Your task to perform on an android device: What's on my calendar today? Image 0: 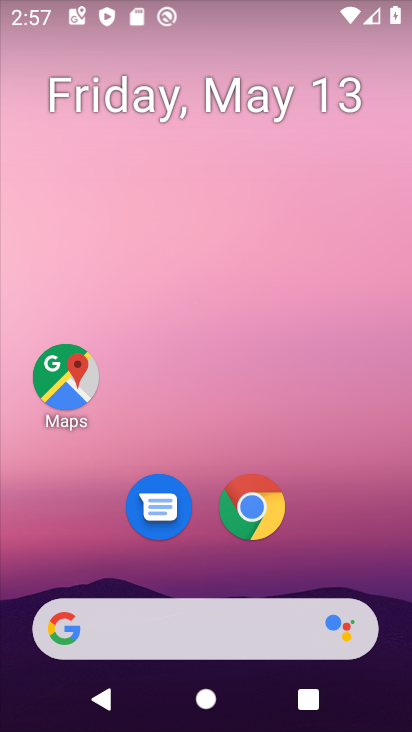
Step 0: drag from (261, 284) to (260, 20)
Your task to perform on an android device: What's on my calendar today? Image 1: 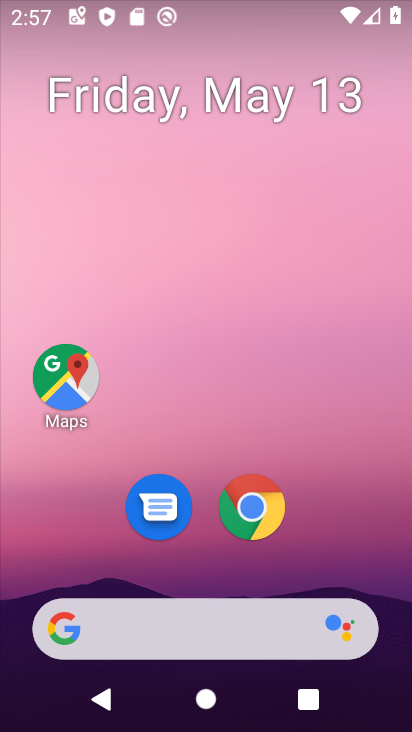
Step 1: drag from (347, 532) to (110, 21)
Your task to perform on an android device: What's on my calendar today? Image 2: 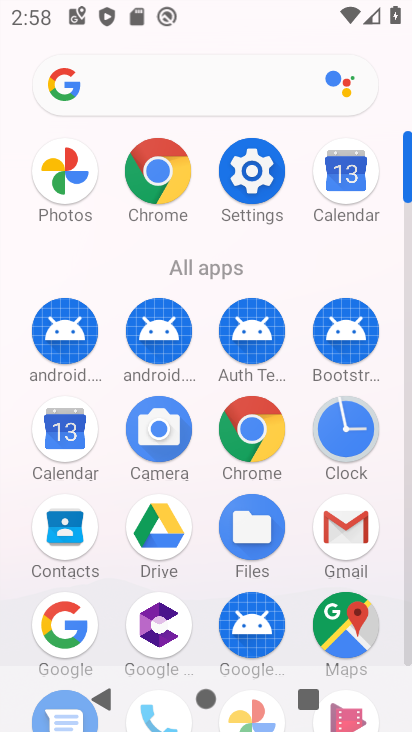
Step 2: drag from (54, 470) to (104, 315)
Your task to perform on an android device: What's on my calendar today? Image 3: 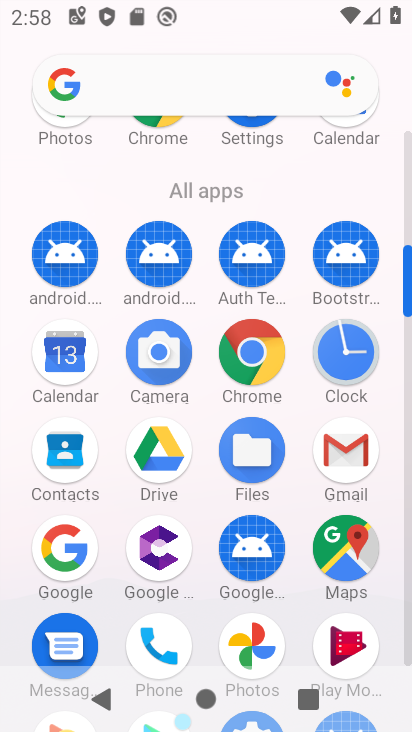
Step 3: click (68, 364)
Your task to perform on an android device: What's on my calendar today? Image 4: 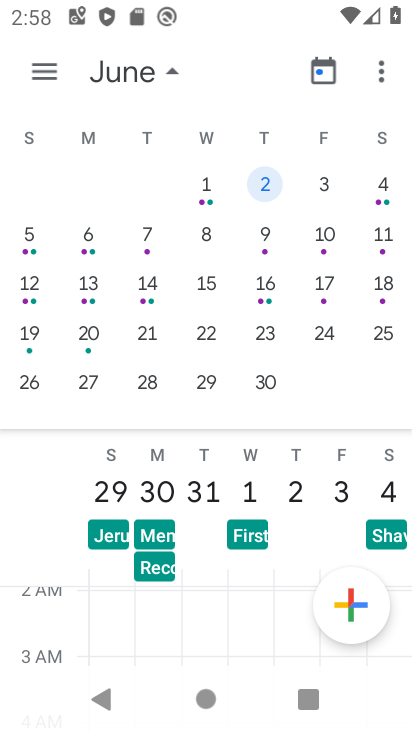
Step 4: click (56, 59)
Your task to perform on an android device: What's on my calendar today? Image 5: 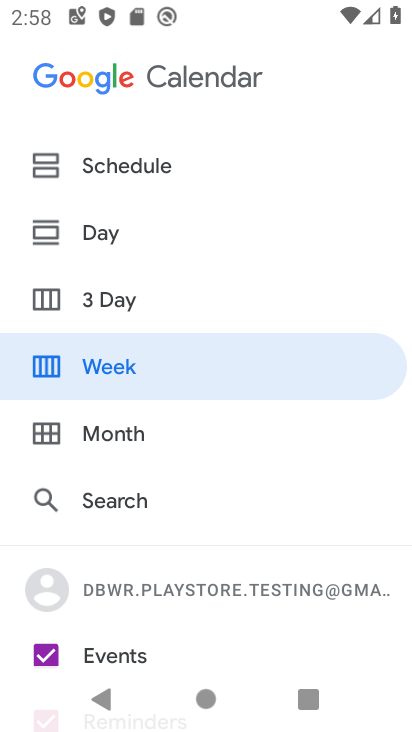
Step 5: click (107, 243)
Your task to perform on an android device: What's on my calendar today? Image 6: 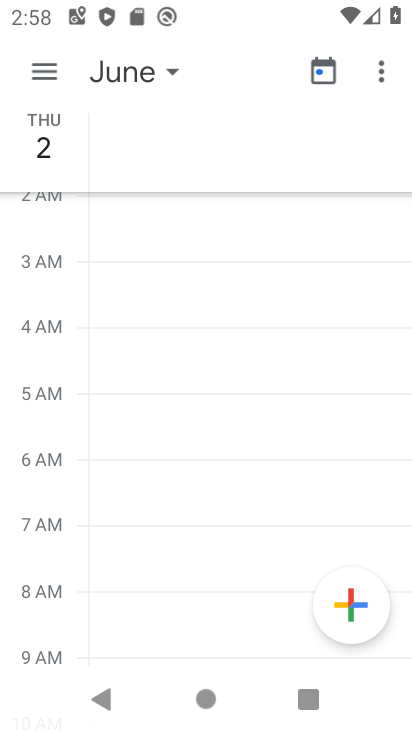
Step 6: click (130, 68)
Your task to perform on an android device: What's on my calendar today? Image 7: 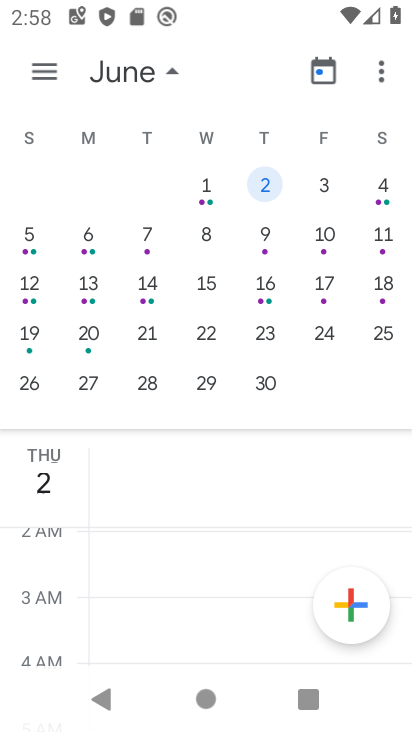
Step 7: drag from (95, 251) to (411, 347)
Your task to perform on an android device: What's on my calendar today? Image 8: 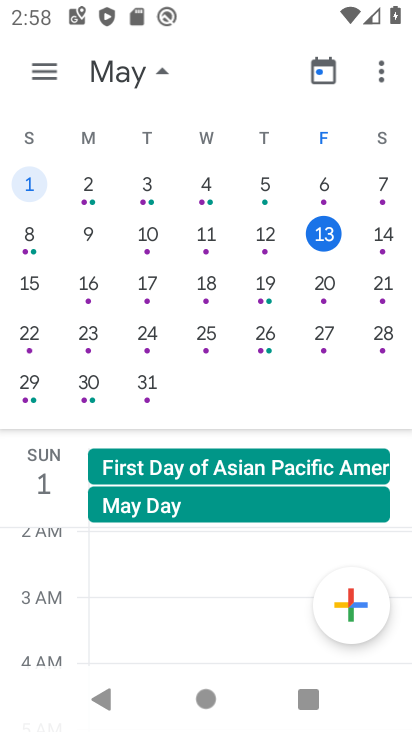
Step 8: click (206, 231)
Your task to perform on an android device: What's on my calendar today? Image 9: 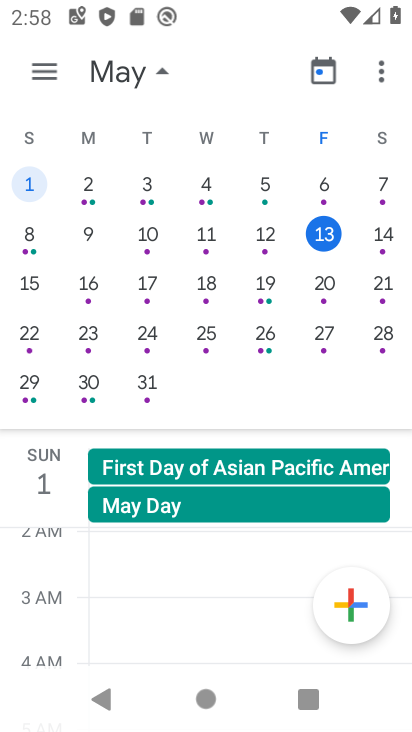
Step 9: drag from (206, 231) to (324, 228)
Your task to perform on an android device: What's on my calendar today? Image 10: 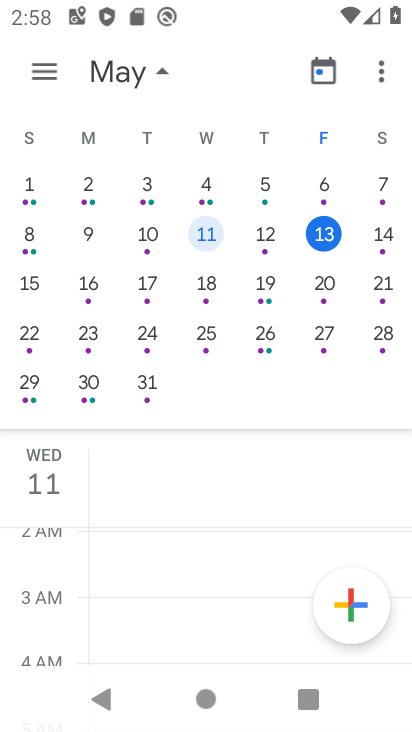
Step 10: click (323, 236)
Your task to perform on an android device: What's on my calendar today? Image 11: 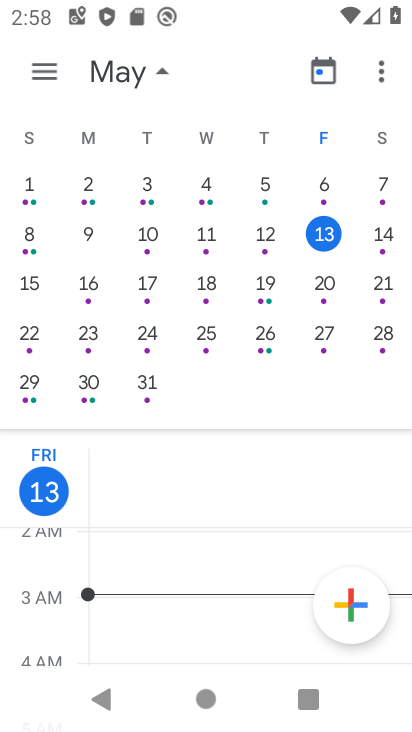
Step 11: task complete